Your task to perform on an android device: allow notifications from all sites in the chrome app Image 0: 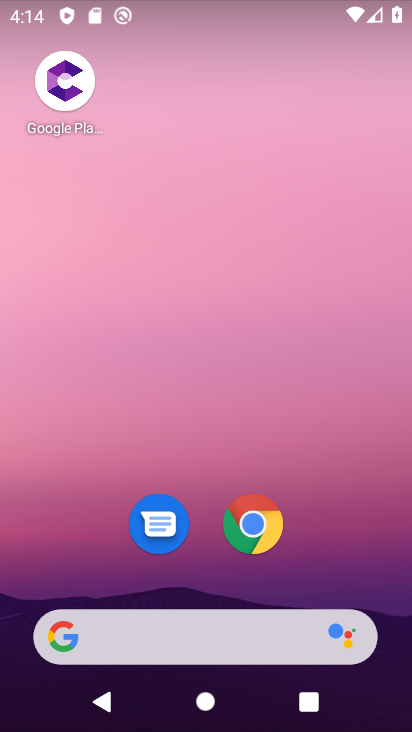
Step 0: drag from (102, 534) to (70, 55)
Your task to perform on an android device: allow notifications from all sites in the chrome app Image 1: 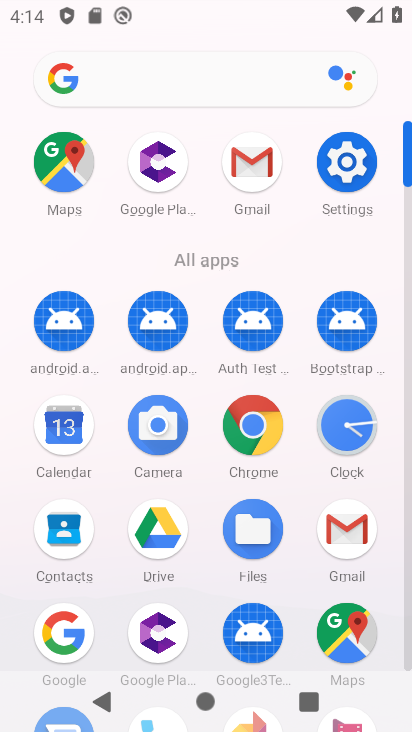
Step 1: click (264, 419)
Your task to perform on an android device: allow notifications from all sites in the chrome app Image 2: 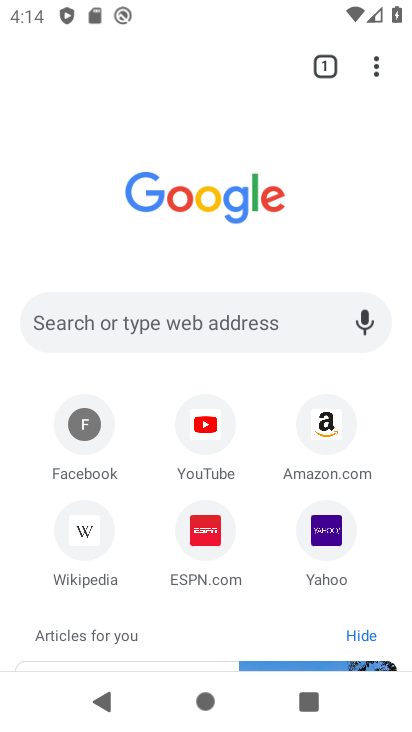
Step 2: click (370, 70)
Your task to perform on an android device: allow notifications from all sites in the chrome app Image 3: 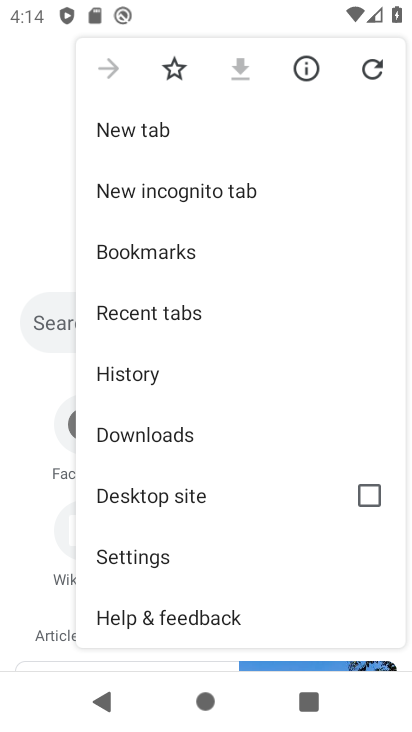
Step 3: click (188, 556)
Your task to perform on an android device: allow notifications from all sites in the chrome app Image 4: 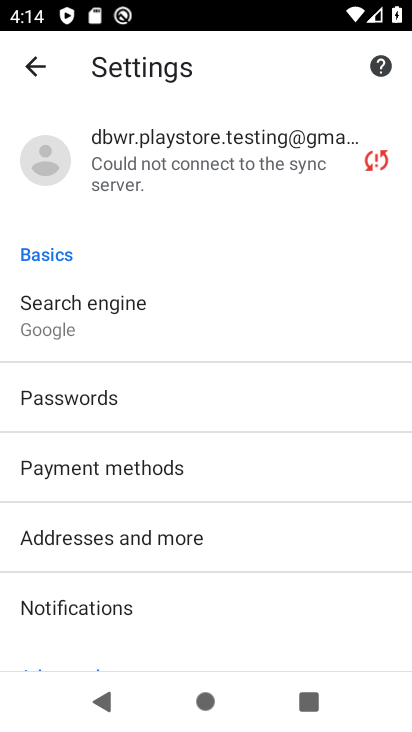
Step 4: click (188, 605)
Your task to perform on an android device: allow notifications from all sites in the chrome app Image 5: 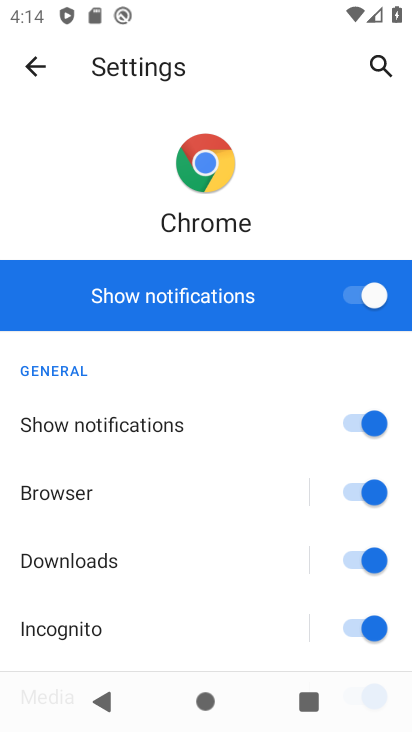
Step 5: task complete